Your task to perform on an android device: What's on my calendar today? Image 0: 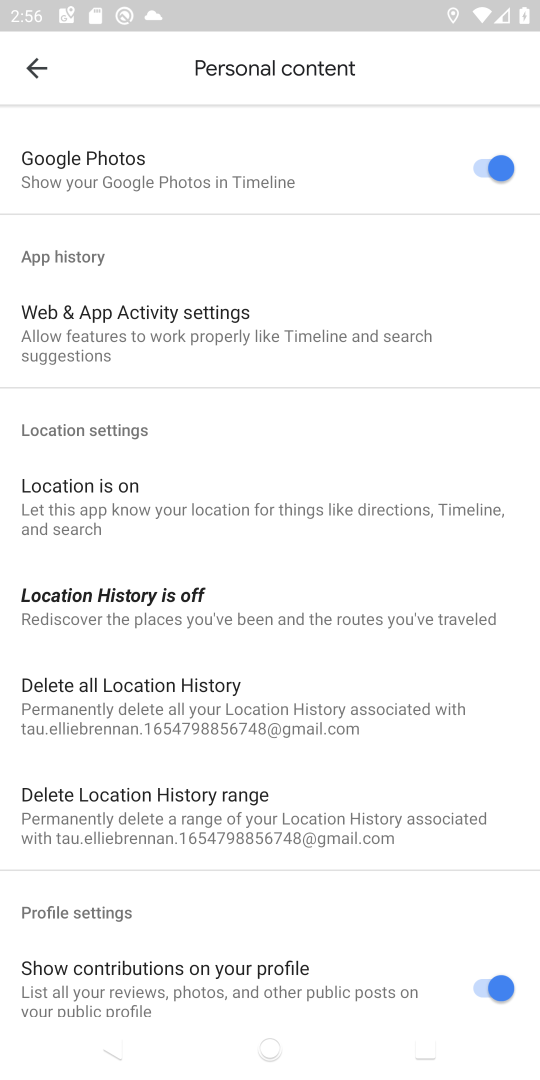
Step 0: press home button
Your task to perform on an android device: What's on my calendar today? Image 1: 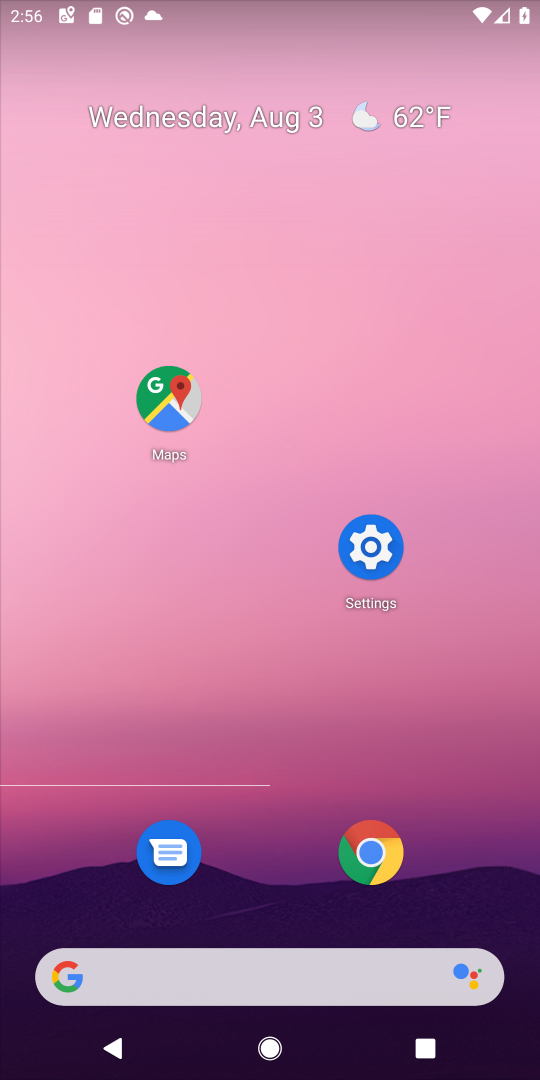
Step 1: drag from (218, 968) to (434, 267)
Your task to perform on an android device: What's on my calendar today? Image 2: 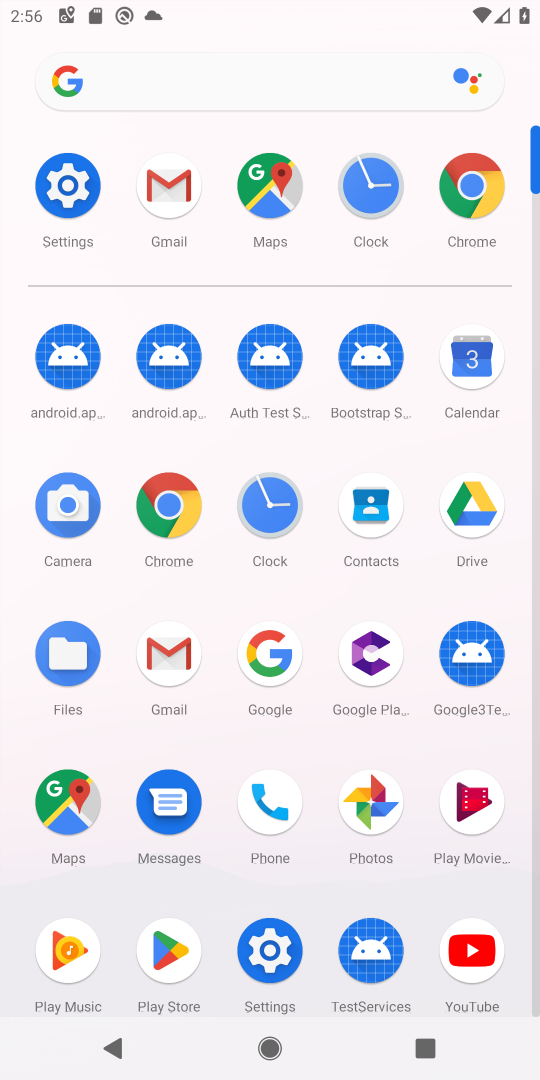
Step 2: click (466, 358)
Your task to perform on an android device: What's on my calendar today? Image 3: 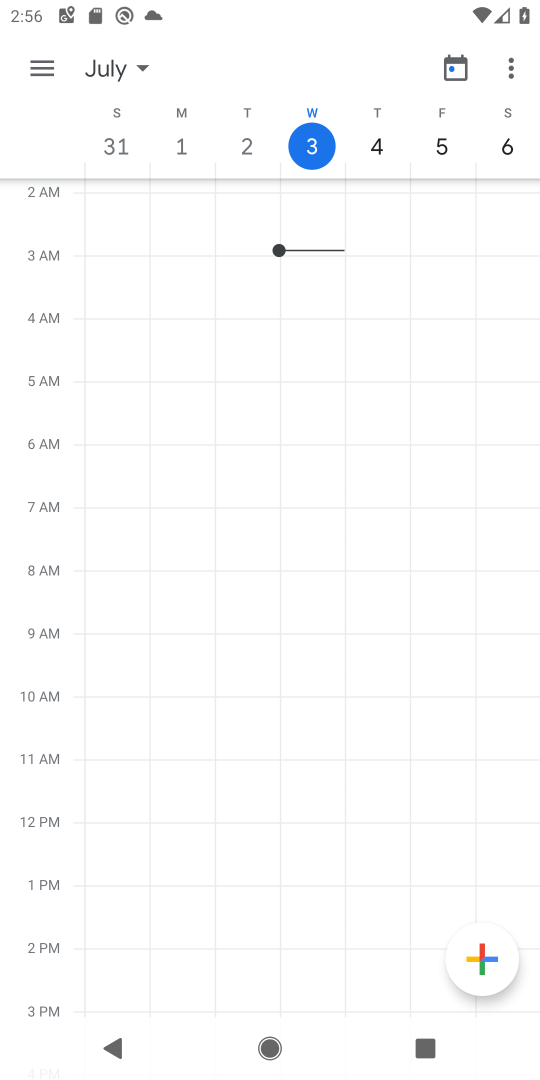
Step 3: click (111, 66)
Your task to perform on an android device: What's on my calendar today? Image 4: 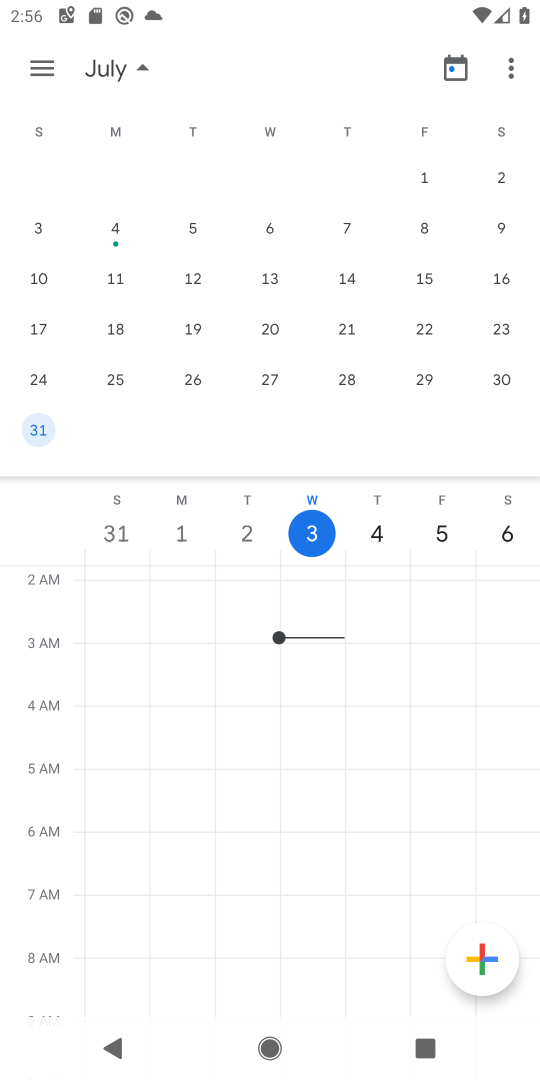
Step 4: drag from (432, 298) to (69, 313)
Your task to perform on an android device: What's on my calendar today? Image 5: 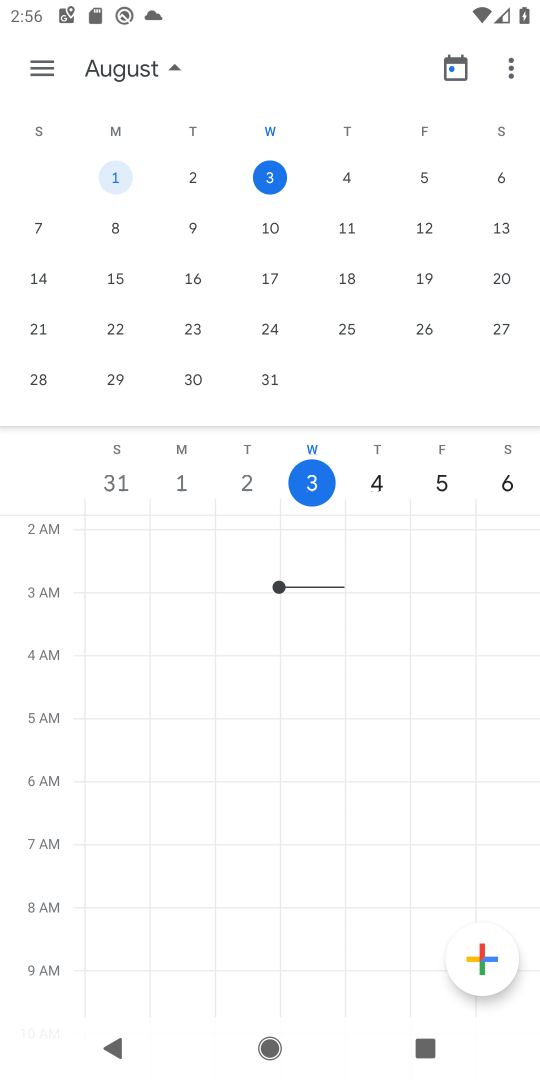
Step 5: click (269, 187)
Your task to perform on an android device: What's on my calendar today? Image 6: 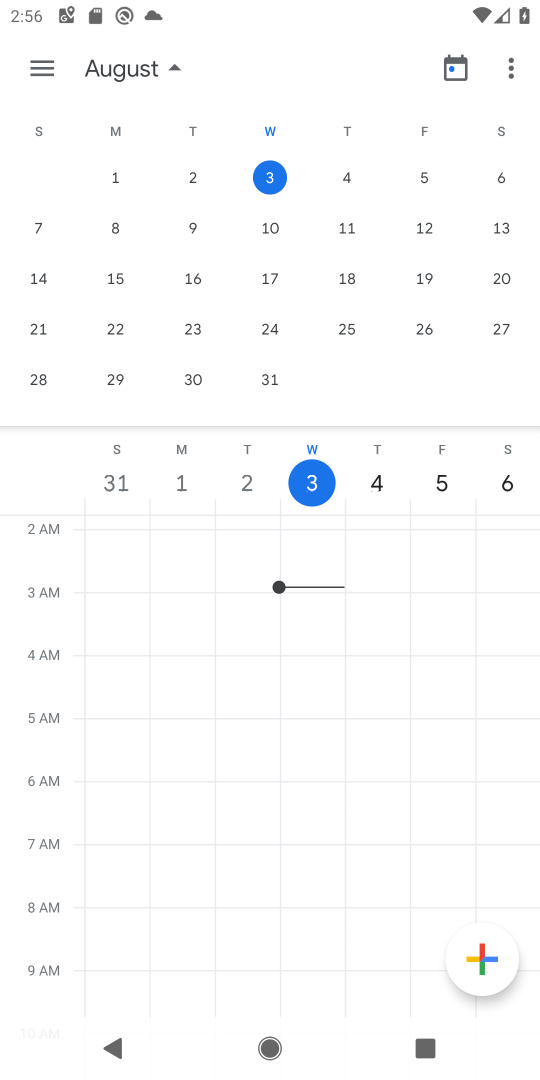
Step 6: click (45, 61)
Your task to perform on an android device: What's on my calendar today? Image 7: 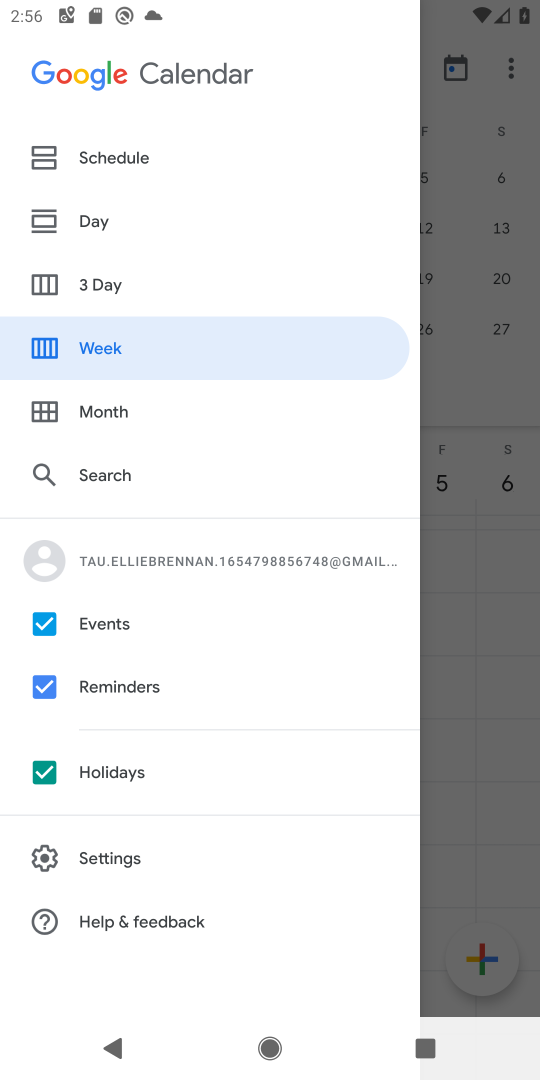
Step 7: click (103, 223)
Your task to perform on an android device: What's on my calendar today? Image 8: 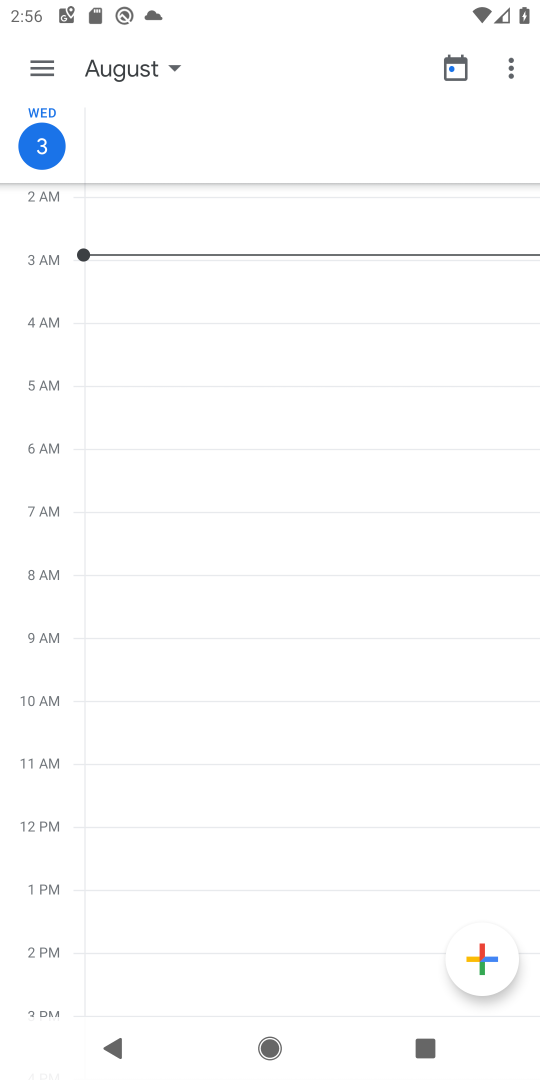
Step 8: click (37, 64)
Your task to perform on an android device: What's on my calendar today? Image 9: 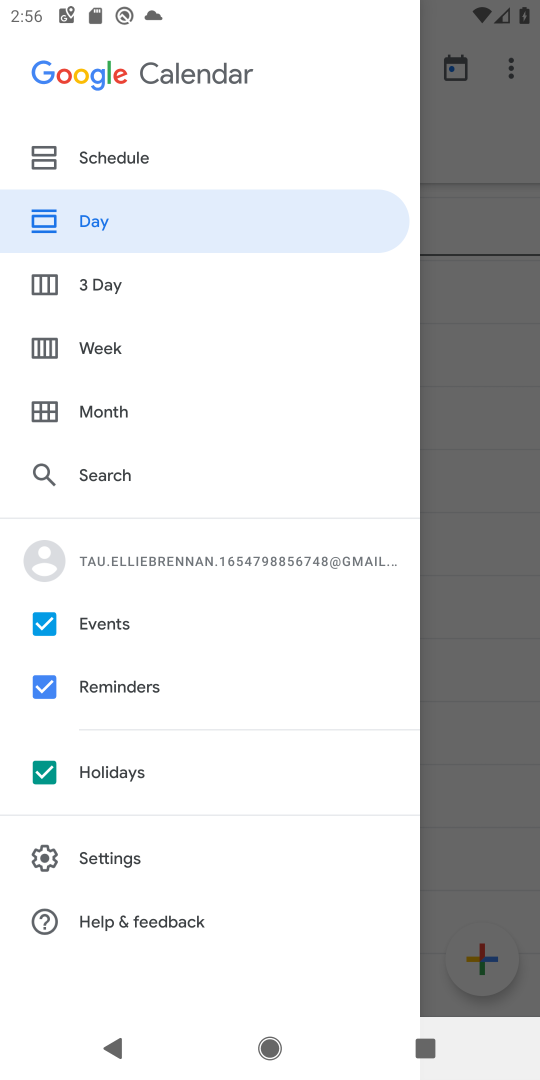
Step 9: click (132, 151)
Your task to perform on an android device: What's on my calendar today? Image 10: 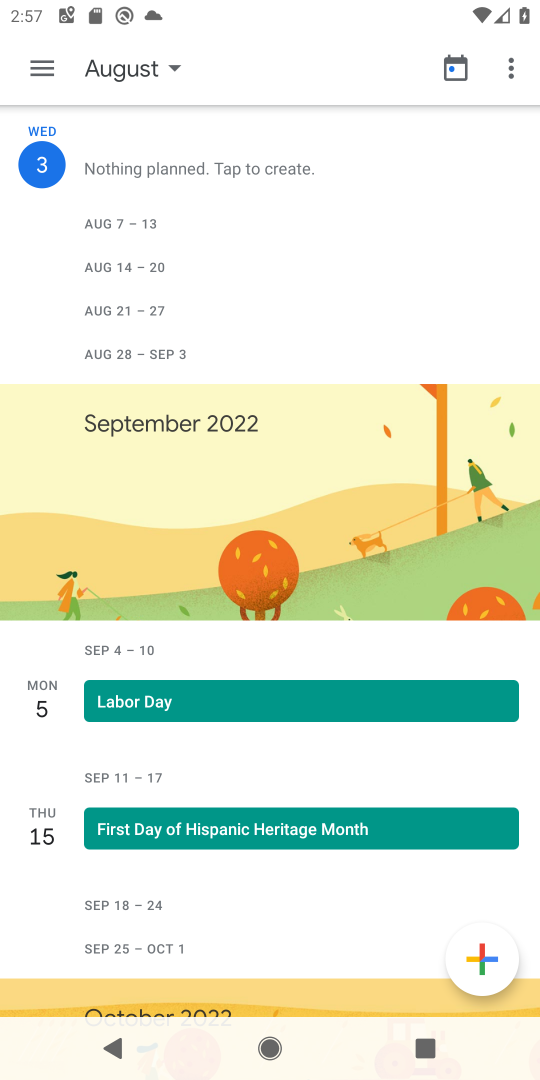
Step 10: task complete